Your task to perform on an android device: What's on my calendar today? Image 0: 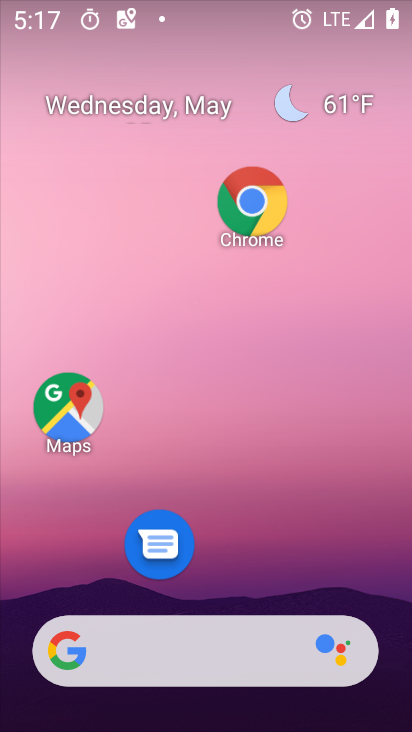
Step 0: drag from (186, 540) to (170, 228)
Your task to perform on an android device: What's on my calendar today? Image 1: 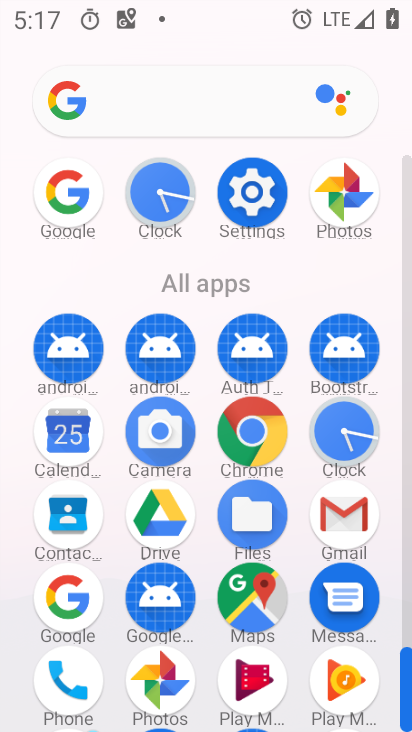
Step 1: click (6, 462)
Your task to perform on an android device: What's on my calendar today? Image 2: 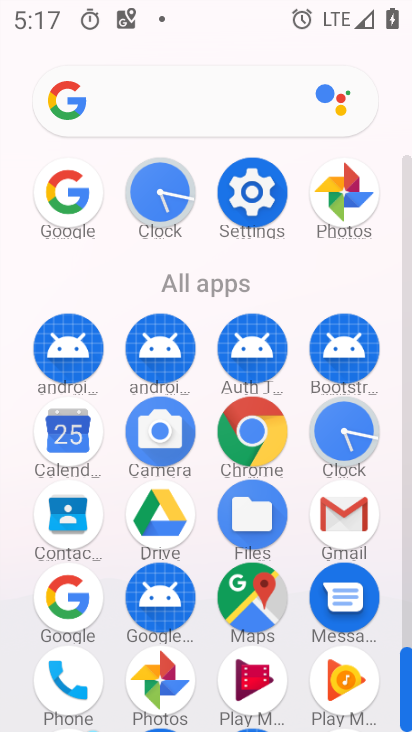
Step 2: click (57, 434)
Your task to perform on an android device: What's on my calendar today? Image 3: 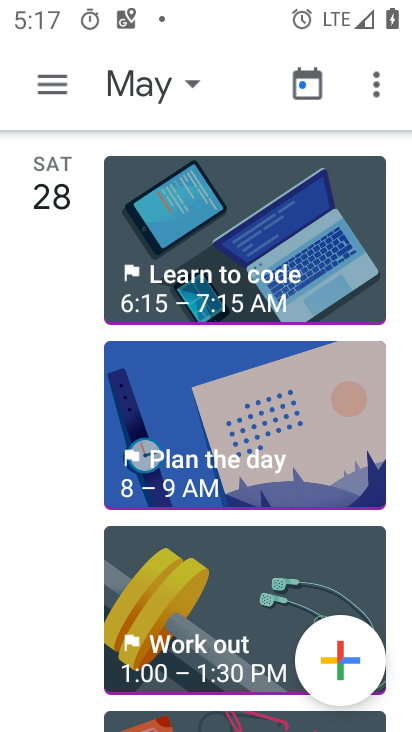
Step 3: click (190, 70)
Your task to perform on an android device: What's on my calendar today? Image 4: 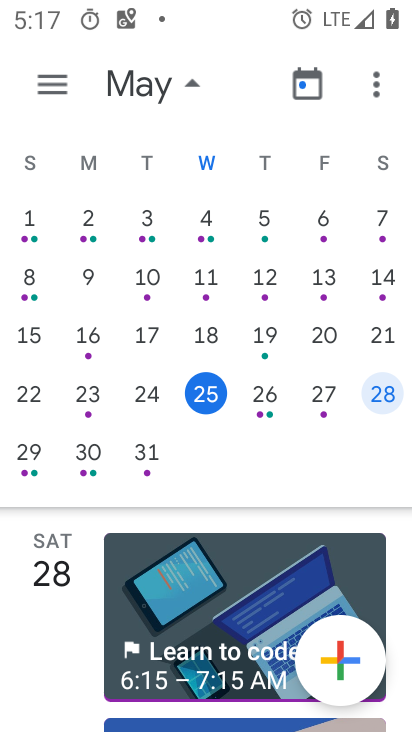
Step 4: click (220, 395)
Your task to perform on an android device: What's on my calendar today? Image 5: 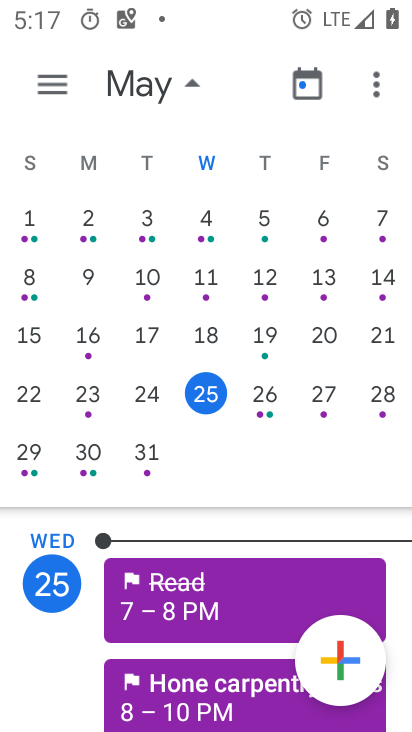
Step 5: drag from (215, 661) to (234, 456)
Your task to perform on an android device: What's on my calendar today? Image 6: 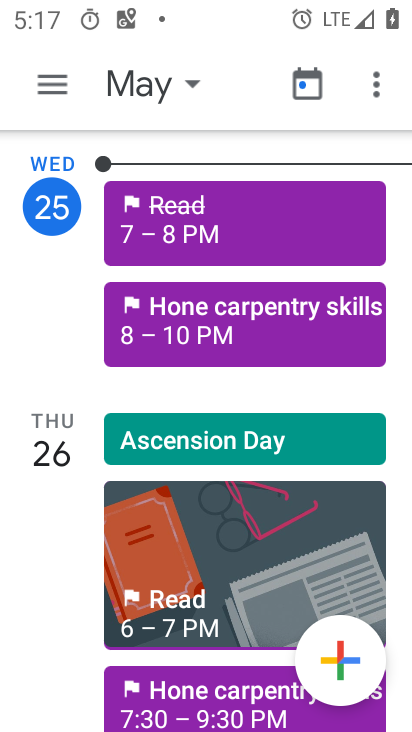
Step 6: click (214, 231)
Your task to perform on an android device: What's on my calendar today? Image 7: 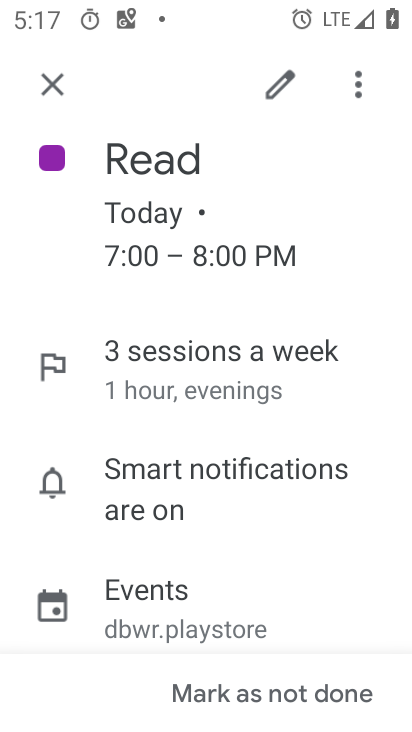
Step 7: task complete